Your task to perform on an android device: Open Google Chrome and click the shortcut for Amazon.com Image 0: 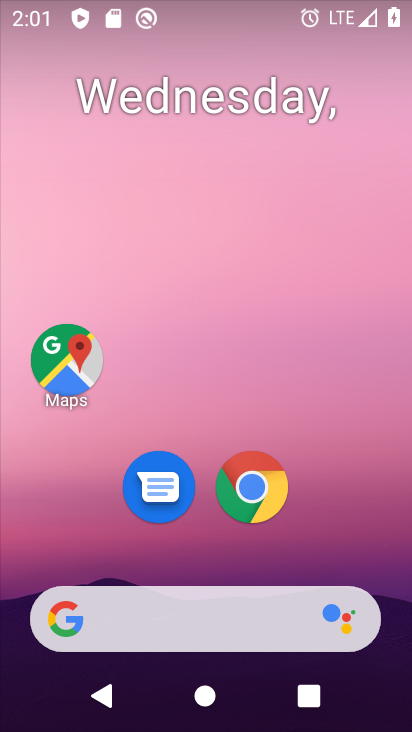
Step 0: drag from (400, 614) to (293, 68)
Your task to perform on an android device: Open Google Chrome and click the shortcut for Amazon.com Image 1: 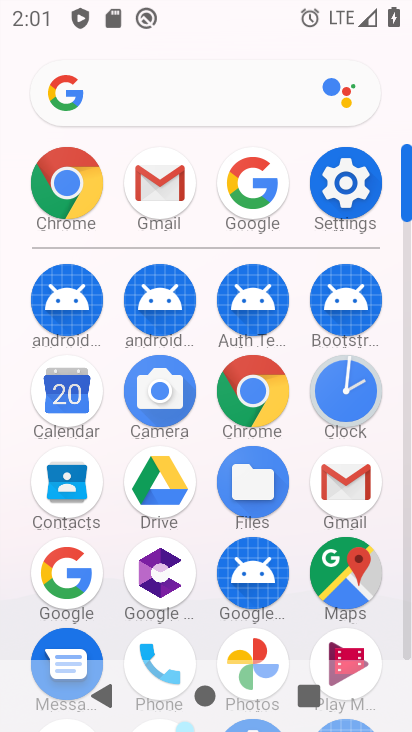
Step 1: click (260, 405)
Your task to perform on an android device: Open Google Chrome and click the shortcut for Amazon.com Image 2: 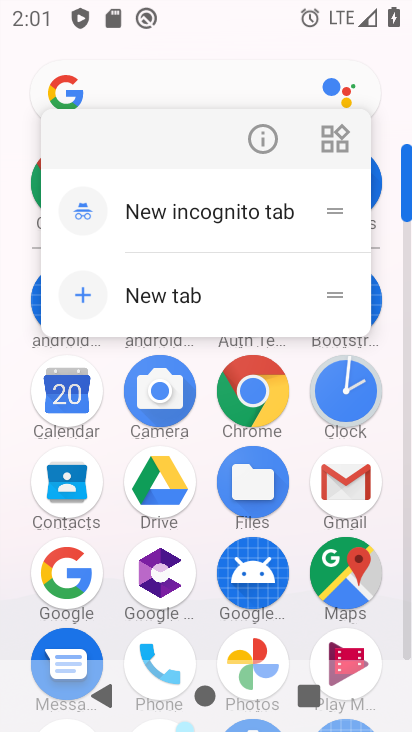
Step 2: click (260, 398)
Your task to perform on an android device: Open Google Chrome and click the shortcut for Amazon.com Image 3: 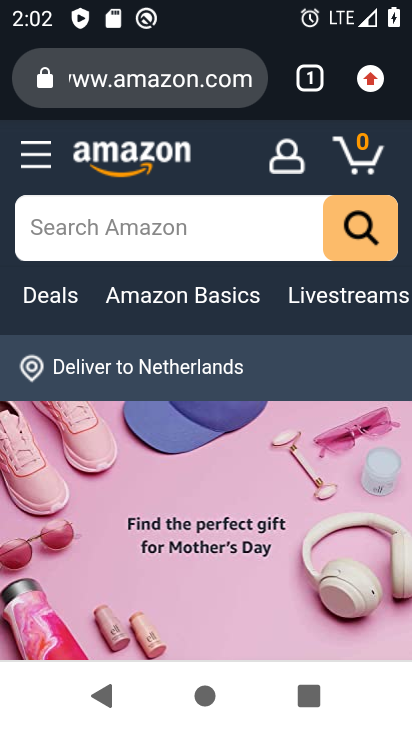
Step 3: task complete